Your task to perform on an android device: toggle priority inbox in the gmail app Image 0: 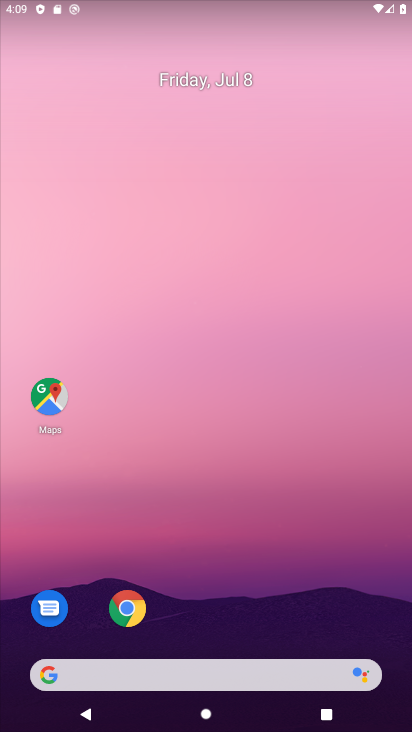
Step 0: press home button
Your task to perform on an android device: toggle priority inbox in the gmail app Image 1: 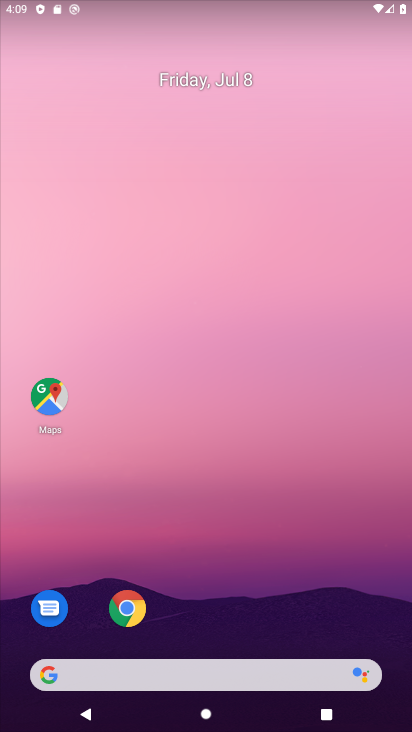
Step 1: drag from (287, 563) to (317, 64)
Your task to perform on an android device: toggle priority inbox in the gmail app Image 2: 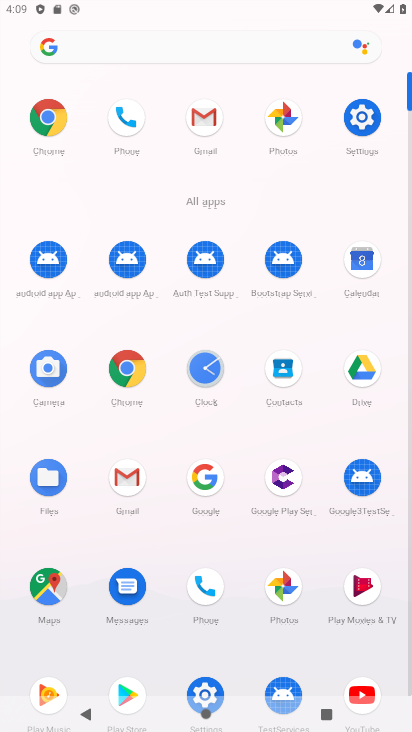
Step 2: click (199, 120)
Your task to perform on an android device: toggle priority inbox in the gmail app Image 3: 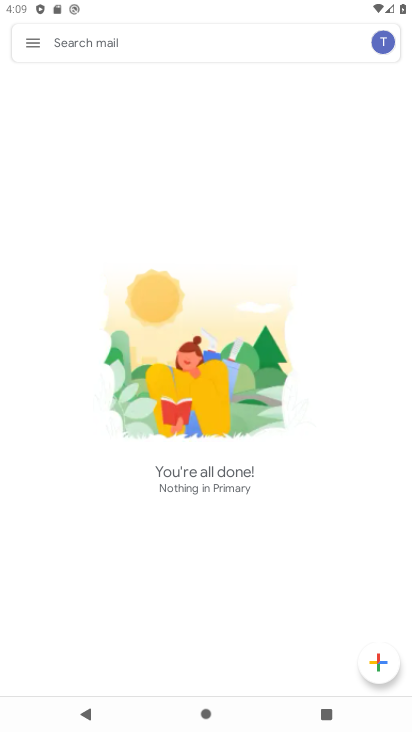
Step 3: click (34, 43)
Your task to perform on an android device: toggle priority inbox in the gmail app Image 4: 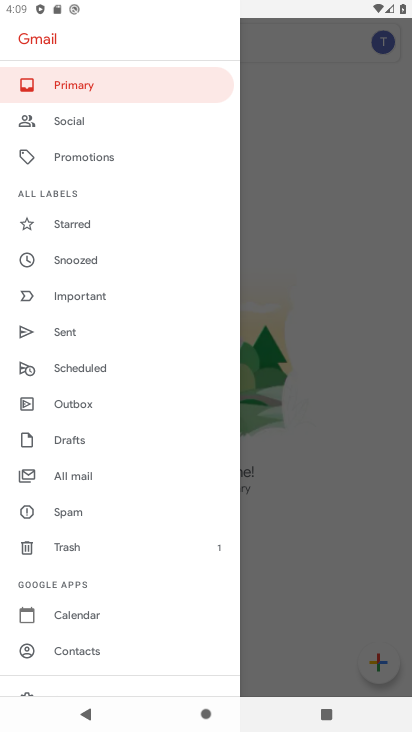
Step 4: drag from (182, 665) to (183, 194)
Your task to perform on an android device: toggle priority inbox in the gmail app Image 5: 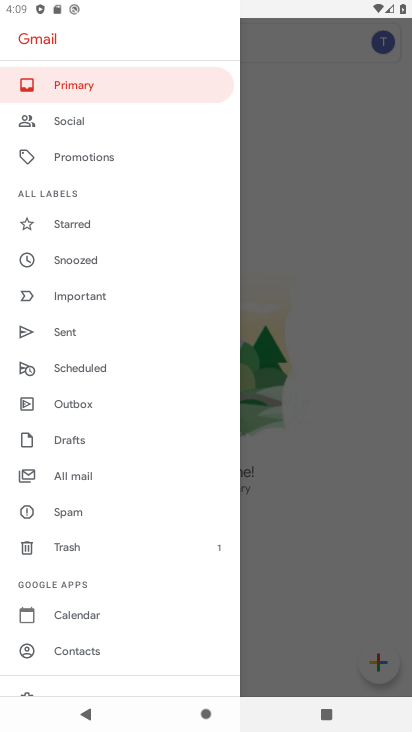
Step 5: drag from (129, 569) to (185, 94)
Your task to perform on an android device: toggle priority inbox in the gmail app Image 6: 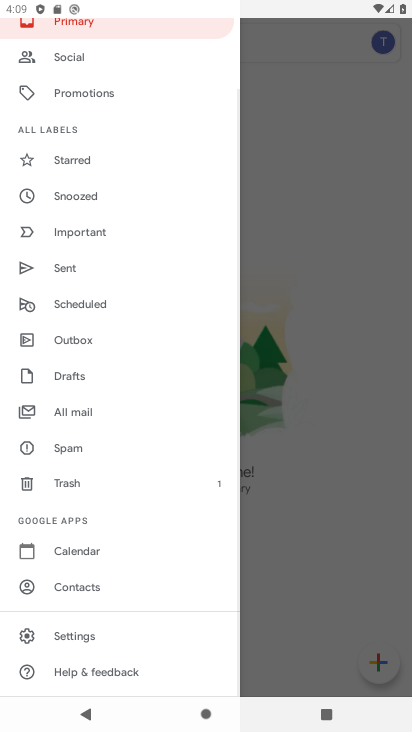
Step 6: click (67, 636)
Your task to perform on an android device: toggle priority inbox in the gmail app Image 7: 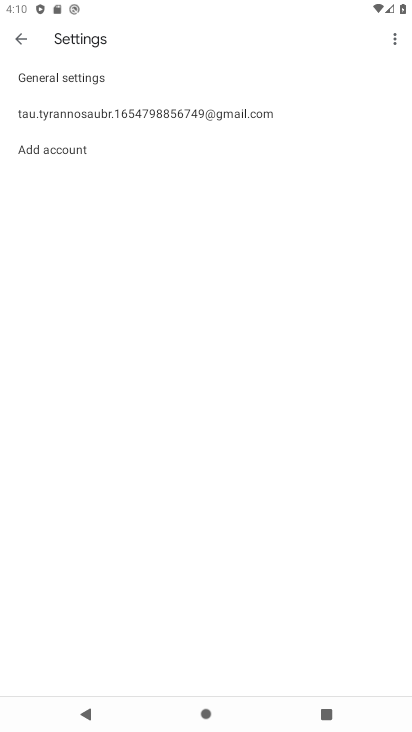
Step 7: click (55, 111)
Your task to perform on an android device: toggle priority inbox in the gmail app Image 8: 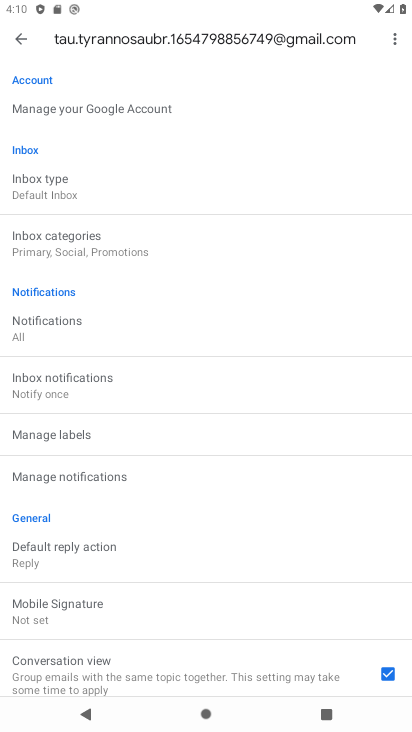
Step 8: click (57, 191)
Your task to perform on an android device: toggle priority inbox in the gmail app Image 9: 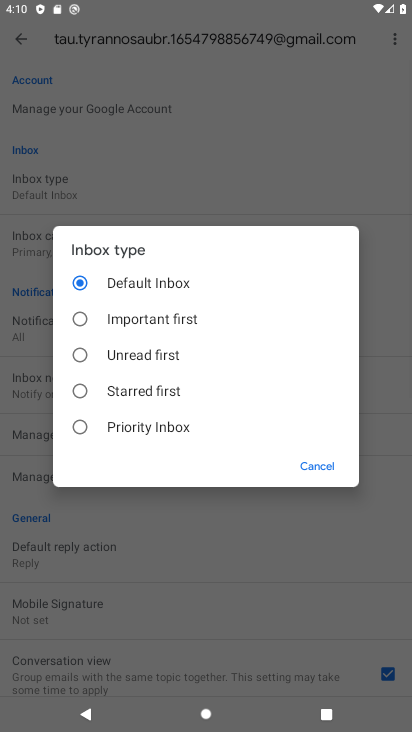
Step 9: click (81, 427)
Your task to perform on an android device: toggle priority inbox in the gmail app Image 10: 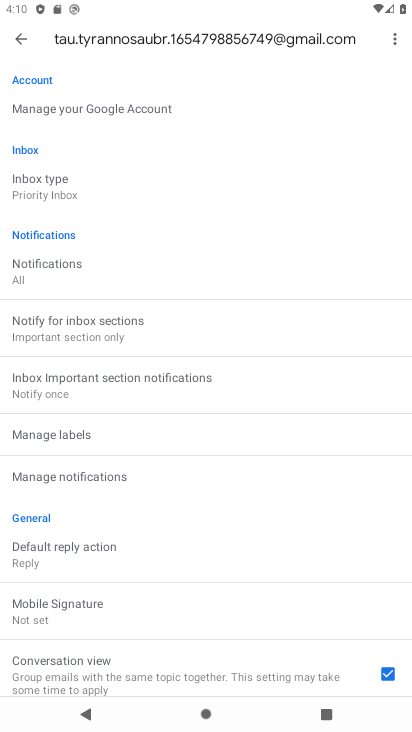
Step 10: task complete